Your task to perform on an android device: toggle sleep mode Image 0: 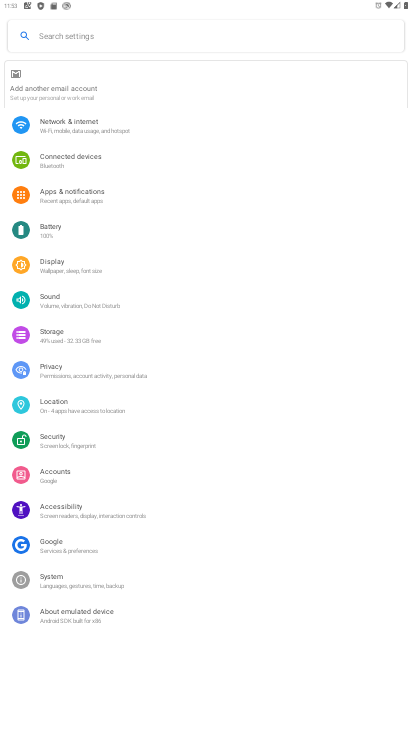
Step 0: drag from (237, 647) to (249, 47)
Your task to perform on an android device: toggle sleep mode Image 1: 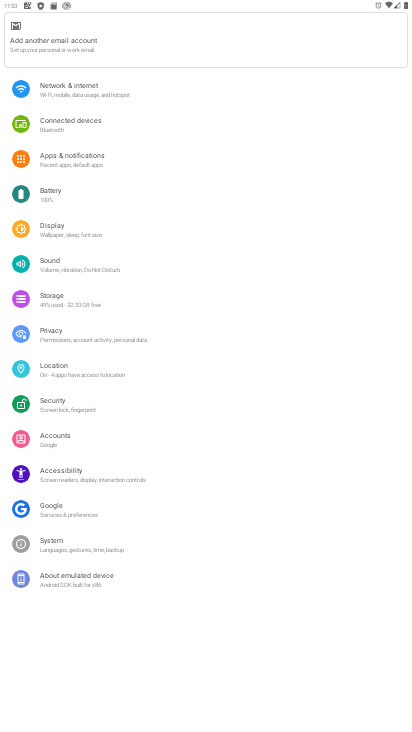
Step 1: click (69, 226)
Your task to perform on an android device: toggle sleep mode Image 2: 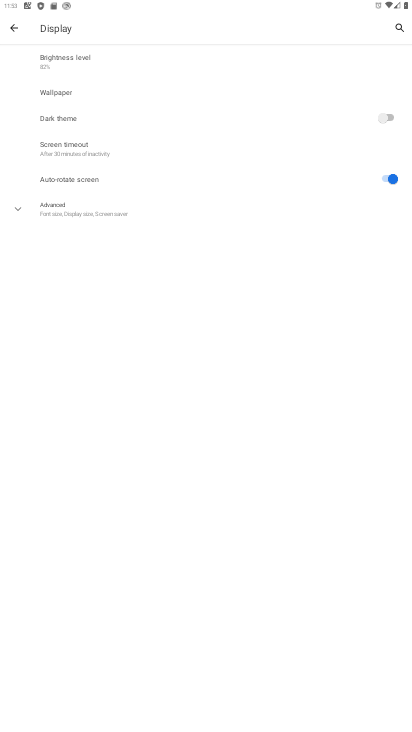
Step 2: click (102, 150)
Your task to perform on an android device: toggle sleep mode Image 3: 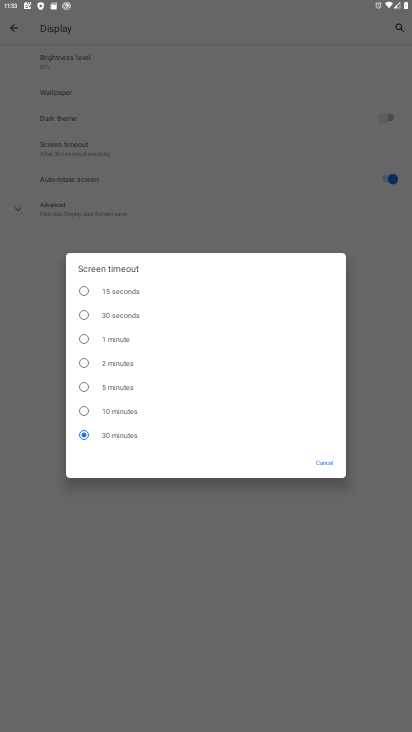
Step 3: click (97, 413)
Your task to perform on an android device: toggle sleep mode Image 4: 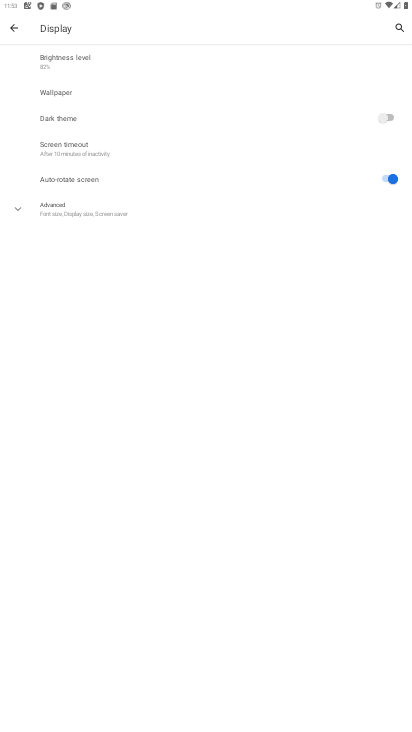
Step 4: task complete